Your task to perform on an android device: Turn off the flashlight Image 0: 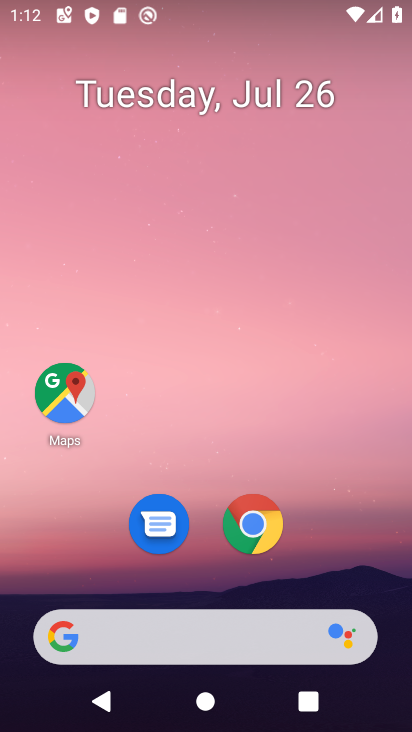
Step 0: drag from (329, 557) to (278, 60)
Your task to perform on an android device: Turn off the flashlight Image 1: 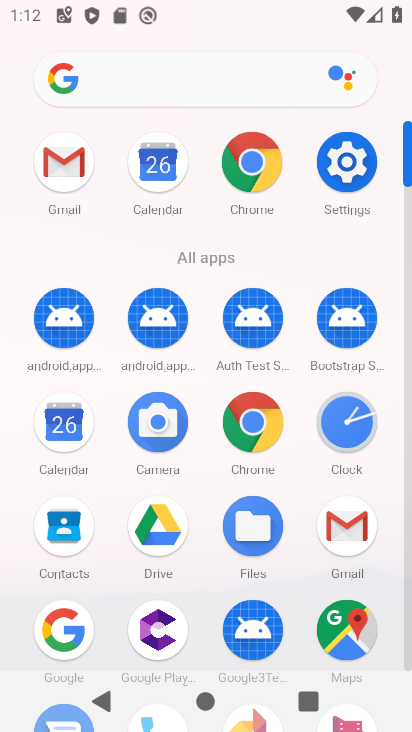
Step 1: click (340, 156)
Your task to perform on an android device: Turn off the flashlight Image 2: 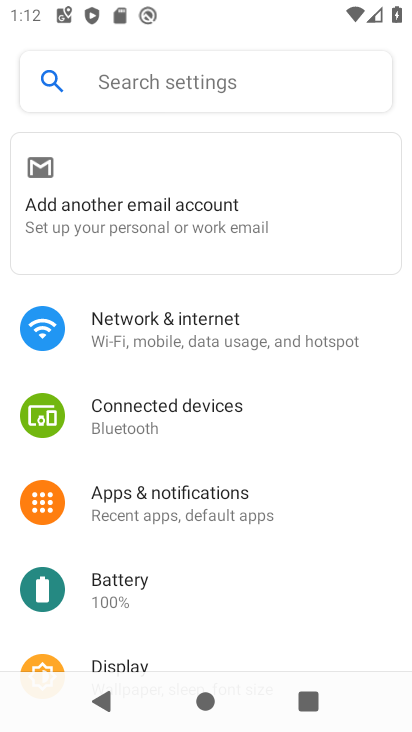
Step 2: click (277, 83)
Your task to perform on an android device: Turn off the flashlight Image 3: 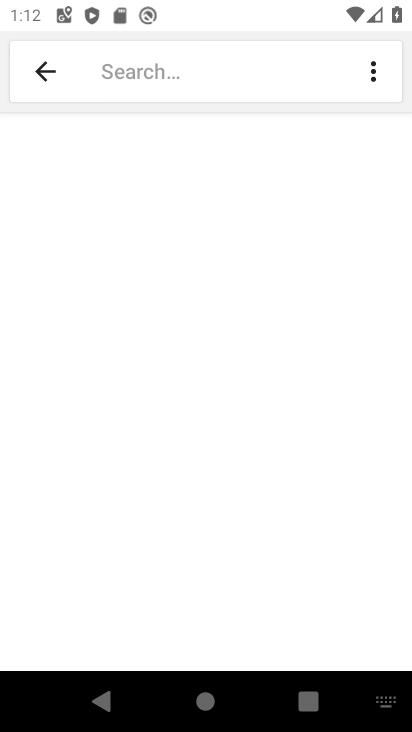
Step 3: type "Flashlight"
Your task to perform on an android device: Turn off the flashlight Image 4: 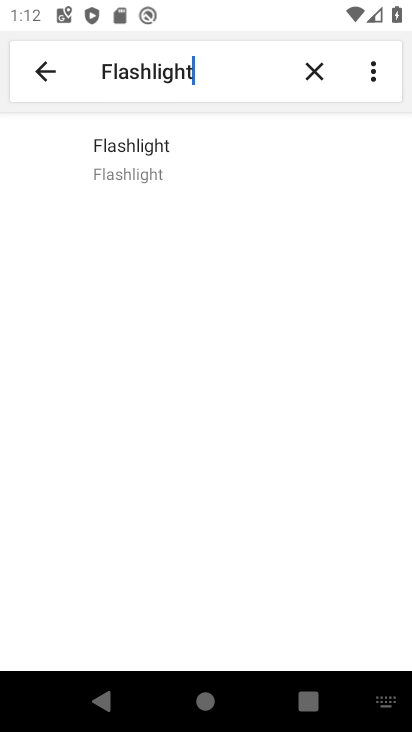
Step 4: click (148, 151)
Your task to perform on an android device: Turn off the flashlight Image 5: 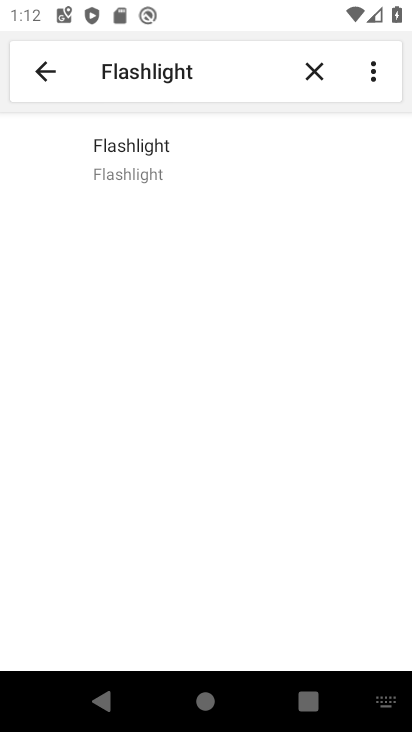
Step 5: click (133, 154)
Your task to perform on an android device: Turn off the flashlight Image 6: 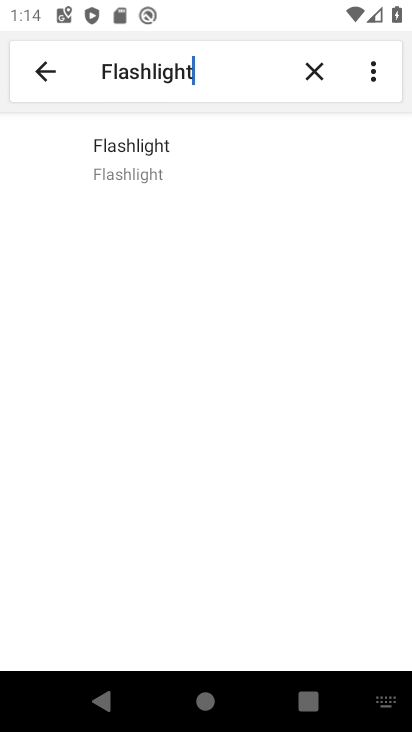
Step 6: task complete